Your task to perform on an android device: When is my next meeting? Image 0: 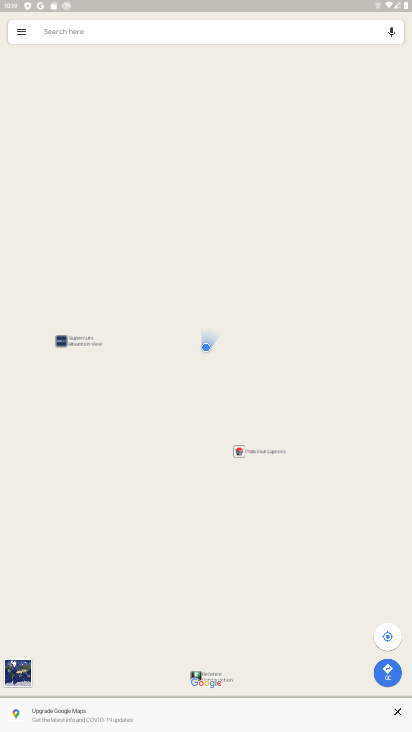
Step 0: press home button
Your task to perform on an android device: When is my next meeting? Image 1: 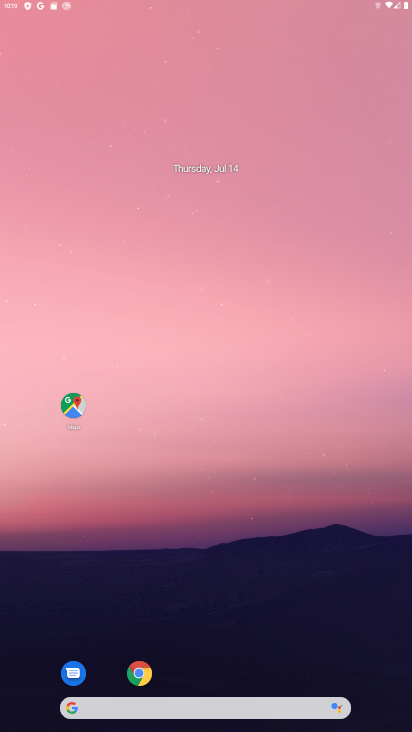
Step 1: drag from (320, 540) to (313, 12)
Your task to perform on an android device: When is my next meeting? Image 2: 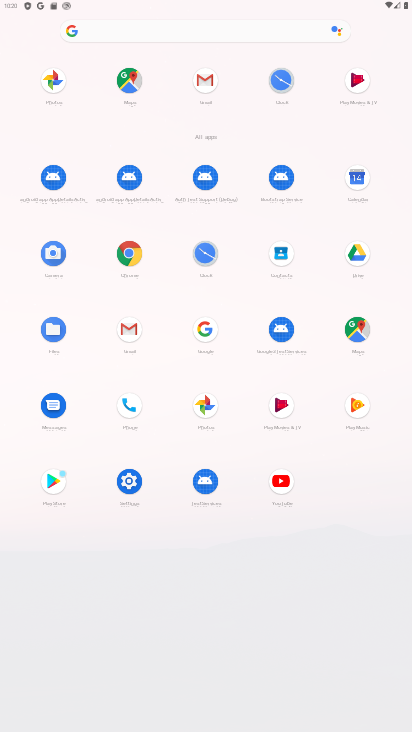
Step 2: click (362, 180)
Your task to perform on an android device: When is my next meeting? Image 3: 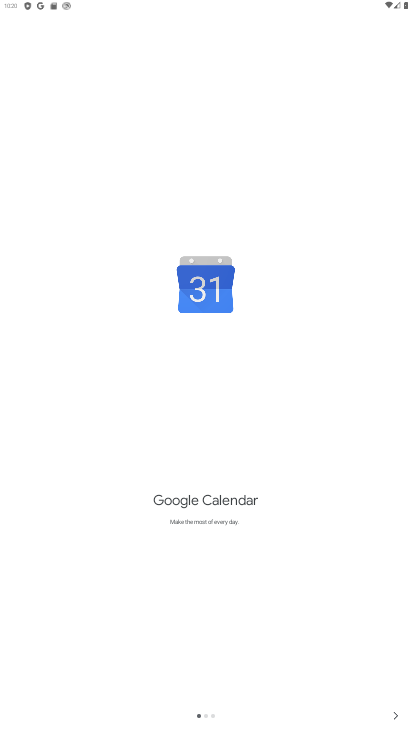
Step 3: click (394, 713)
Your task to perform on an android device: When is my next meeting? Image 4: 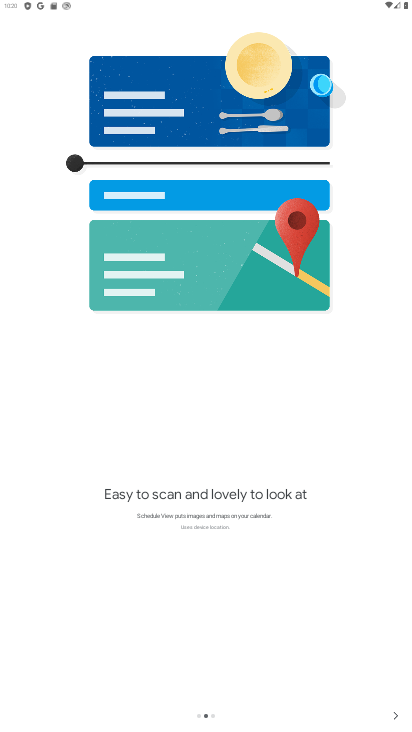
Step 4: click (391, 704)
Your task to perform on an android device: When is my next meeting? Image 5: 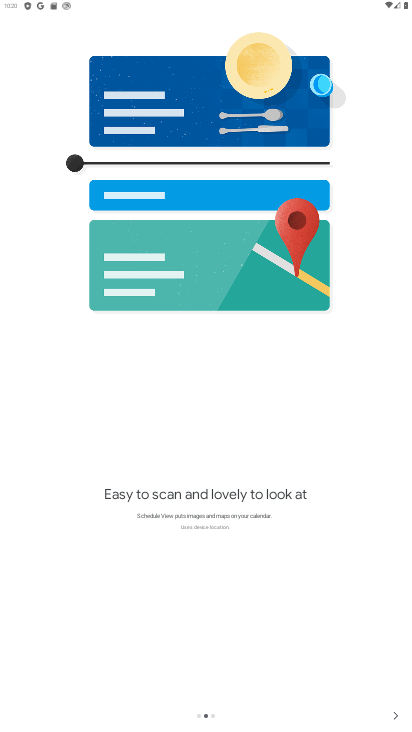
Step 5: click (391, 710)
Your task to perform on an android device: When is my next meeting? Image 6: 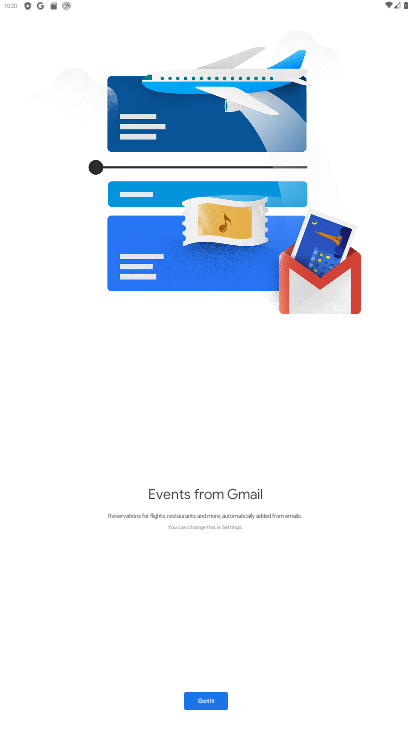
Step 6: click (215, 699)
Your task to perform on an android device: When is my next meeting? Image 7: 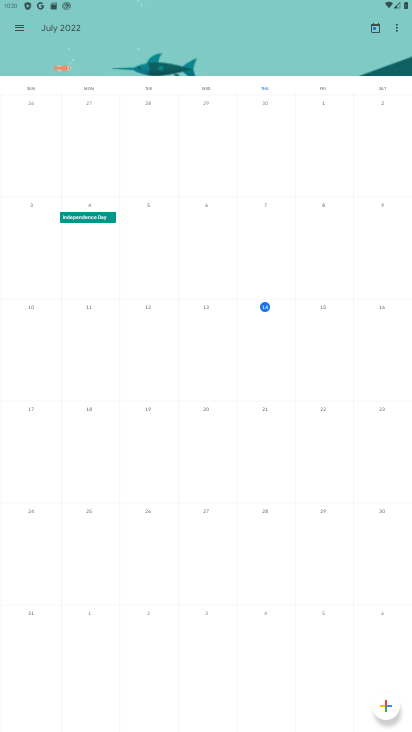
Step 7: task complete